Your task to perform on an android device: change notifications settings Image 0: 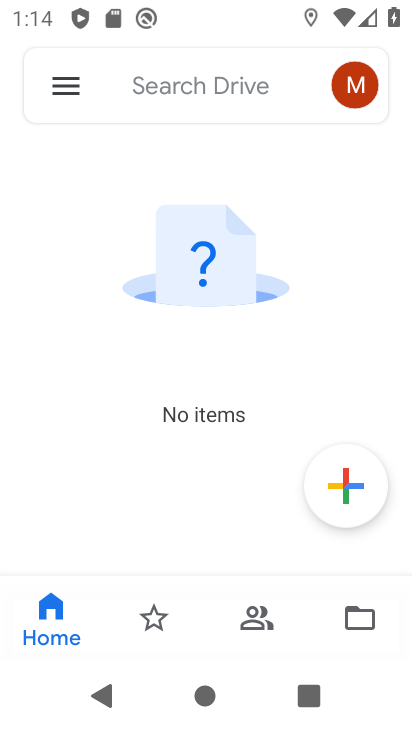
Step 0: press back button
Your task to perform on an android device: change notifications settings Image 1: 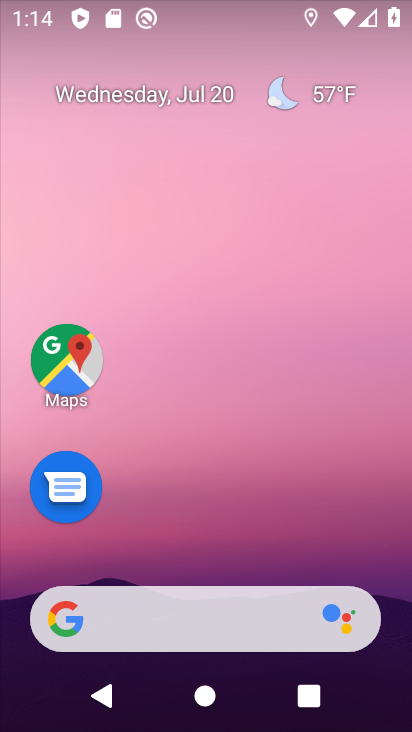
Step 1: drag from (168, 542) to (269, 33)
Your task to perform on an android device: change notifications settings Image 2: 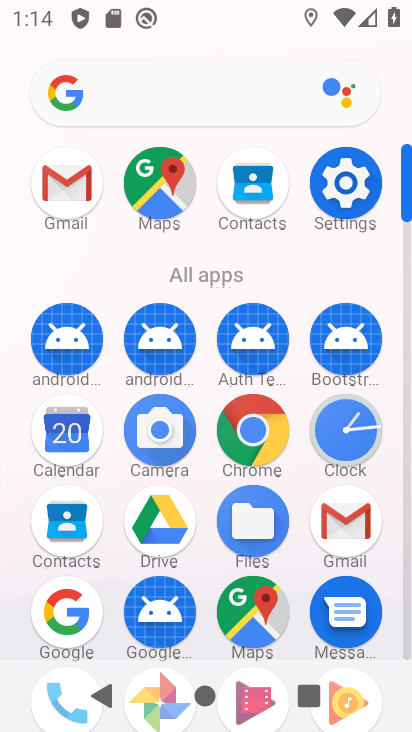
Step 2: click (352, 205)
Your task to perform on an android device: change notifications settings Image 3: 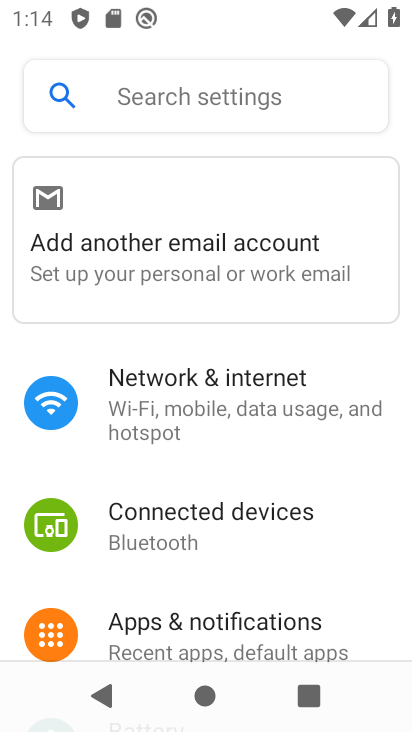
Step 3: click (242, 618)
Your task to perform on an android device: change notifications settings Image 4: 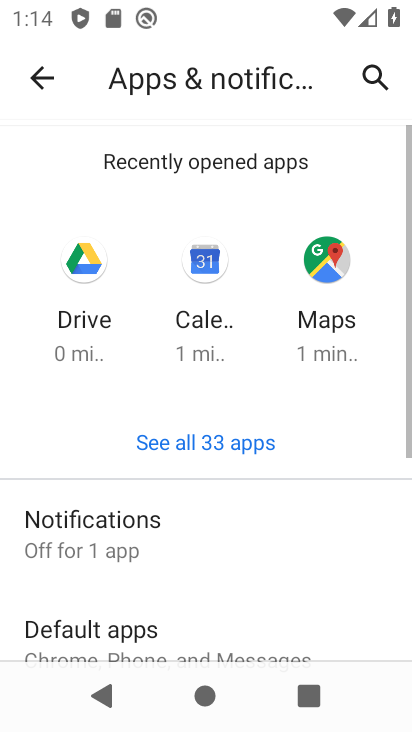
Step 4: click (157, 517)
Your task to perform on an android device: change notifications settings Image 5: 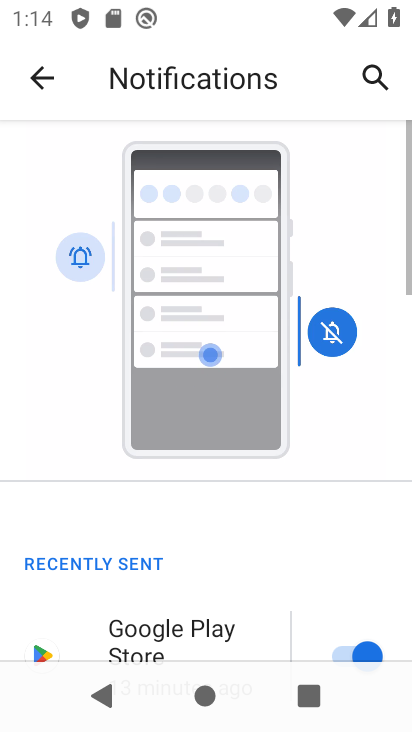
Step 5: drag from (206, 645) to (279, 55)
Your task to perform on an android device: change notifications settings Image 6: 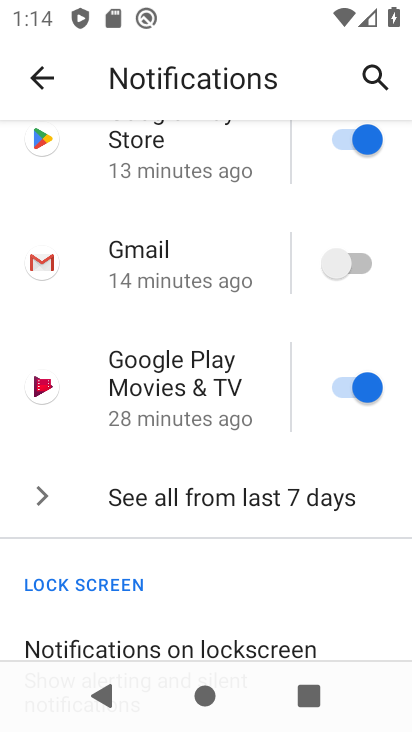
Step 6: drag from (226, 469) to (313, 7)
Your task to perform on an android device: change notifications settings Image 7: 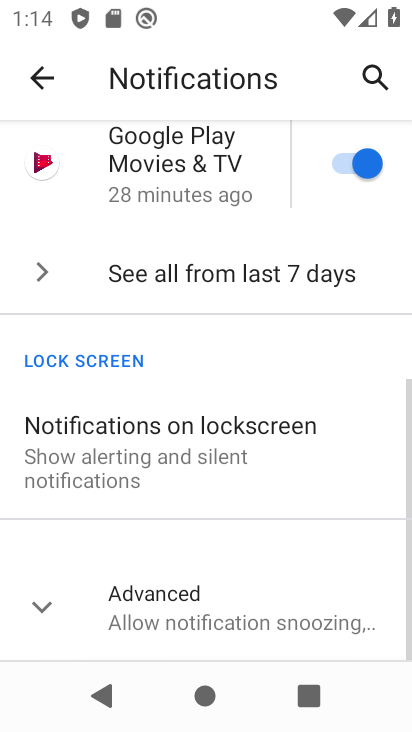
Step 7: click (184, 584)
Your task to perform on an android device: change notifications settings Image 8: 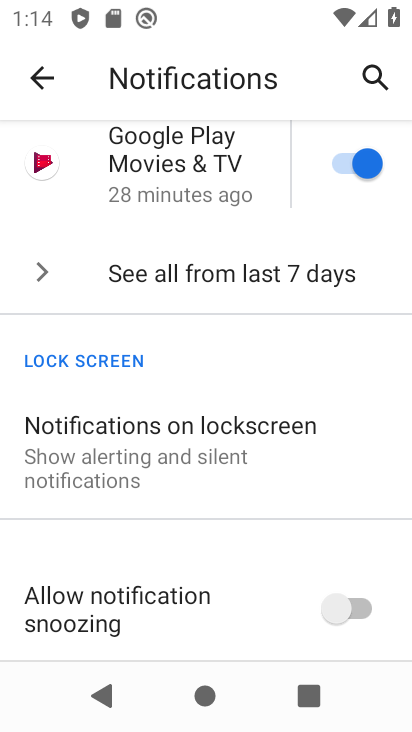
Step 8: click (362, 598)
Your task to perform on an android device: change notifications settings Image 9: 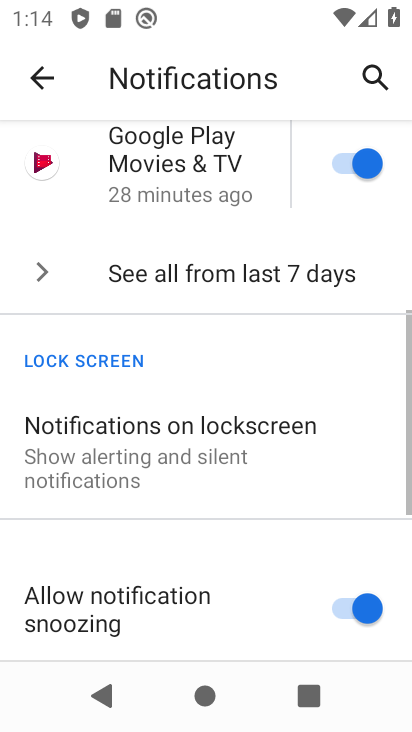
Step 9: task complete